Your task to perform on an android device: check data usage Image 0: 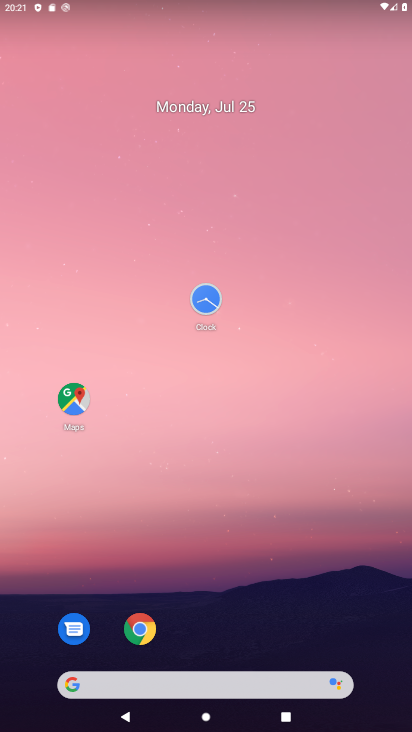
Step 0: drag from (249, 639) to (245, 241)
Your task to perform on an android device: check data usage Image 1: 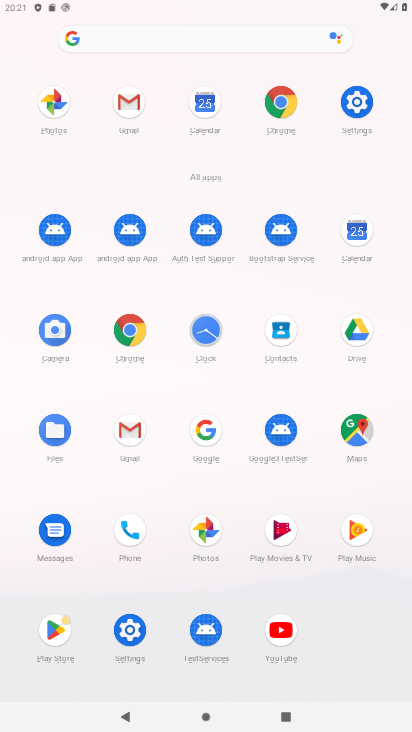
Step 1: click (128, 647)
Your task to perform on an android device: check data usage Image 2: 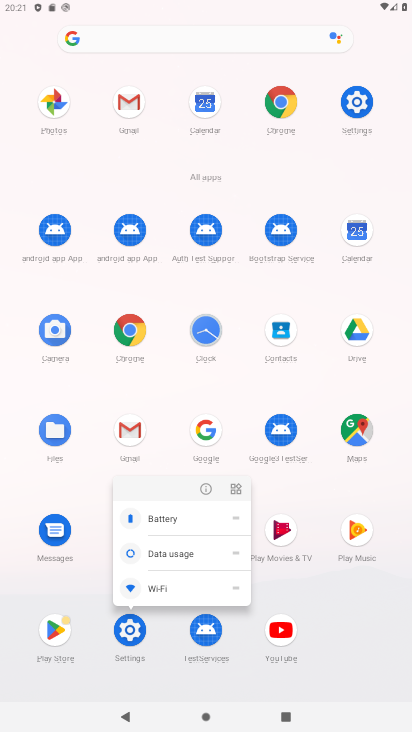
Step 2: click (144, 646)
Your task to perform on an android device: check data usage Image 3: 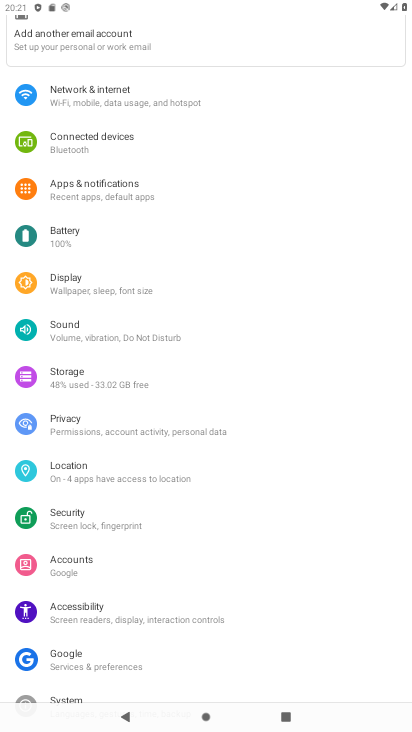
Step 3: click (164, 100)
Your task to perform on an android device: check data usage Image 4: 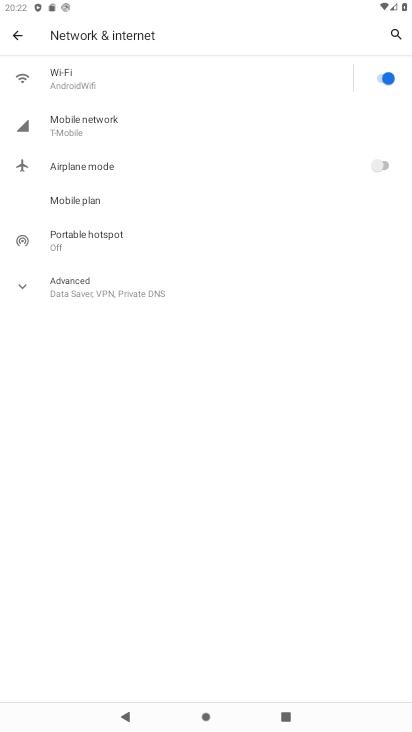
Step 4: click (92, 143)
Your task to perform on an android device: check data usage Image 5: 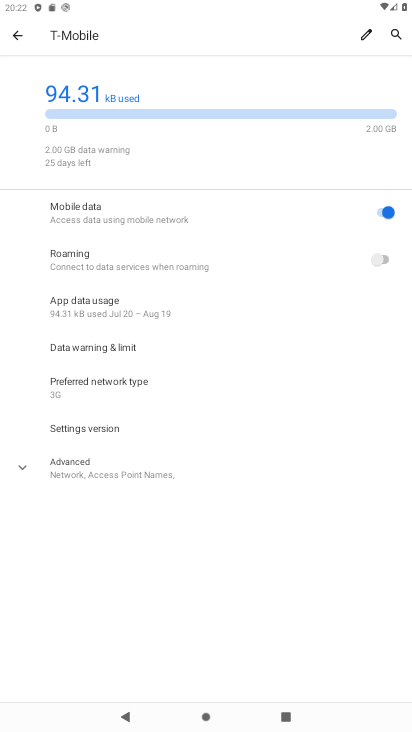
Step 5: click (103, 298)
Your task to perform on an android device: check data usage Image 6: 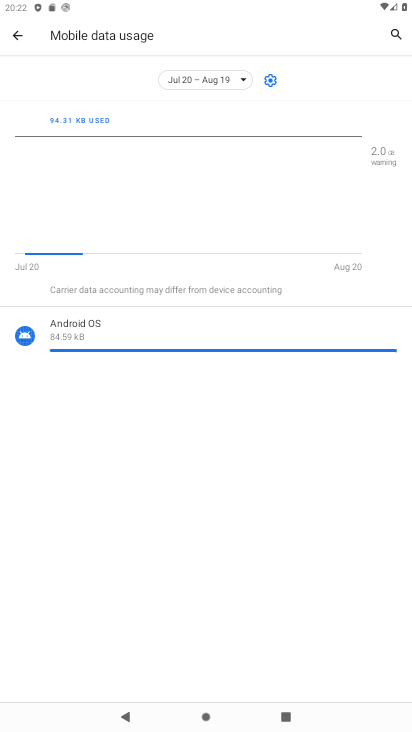
Step 6: task complete